Your task to perform on an android device: set an alarm Image 0: 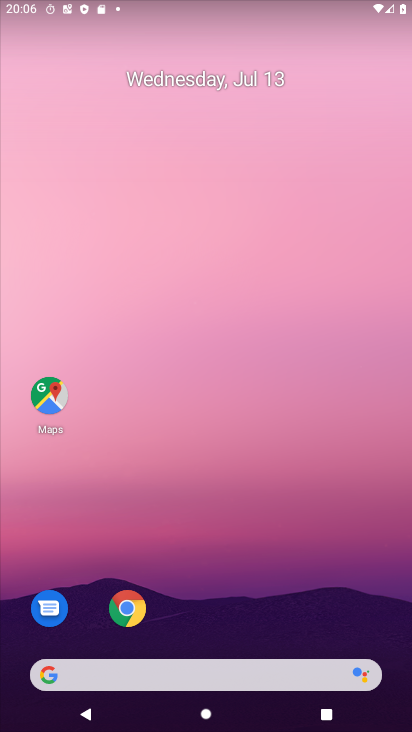
Step 0: drag from (177, 629) to (175, 54)
Your task to perform on an android device: set an alarm Image 1: 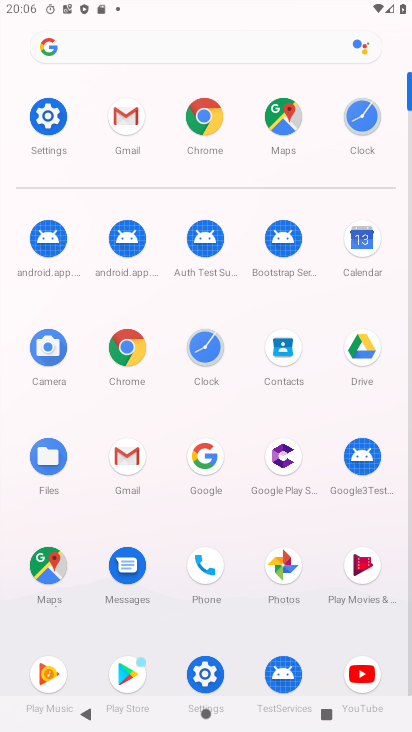
Step 1: click (194, 360)
Your task to perform on an android device: set an alarm Image 2: 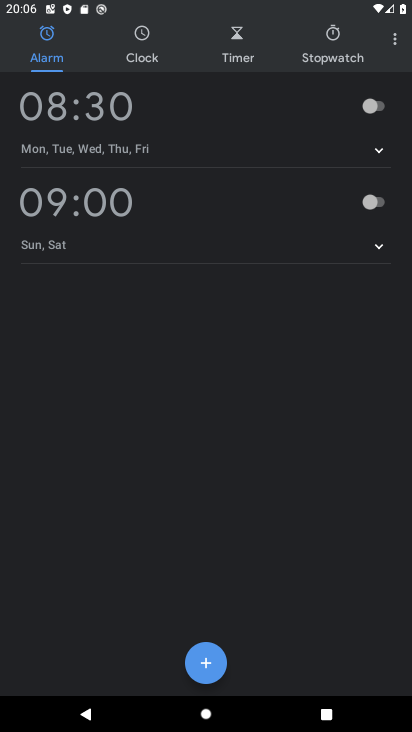
Step 2: click (211, 644)
Your task to perform on an android device: set an alarm Image 3: 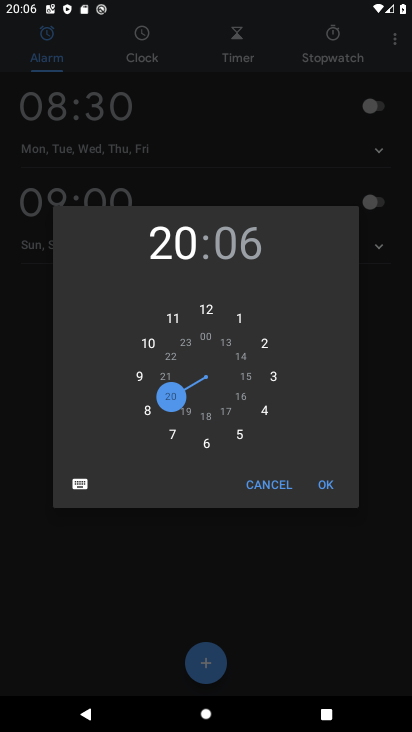
Step 3: click (322, 487)
Your task to perform on an android device: set an alarm Image 4: 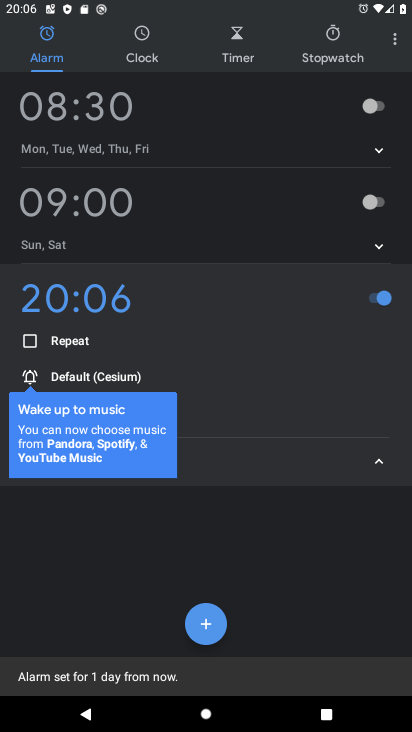
Step 4: task complete